Your task to perform on an android device: Do I have any events this weekend? Image 0: 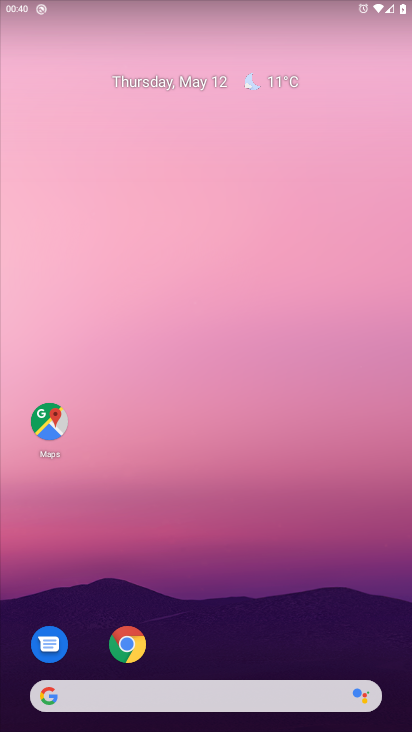
Step 0: drag from (208, 662) to (269, 198)
Your task to perform on an android device: Do I have any events this weekend? Image 1: 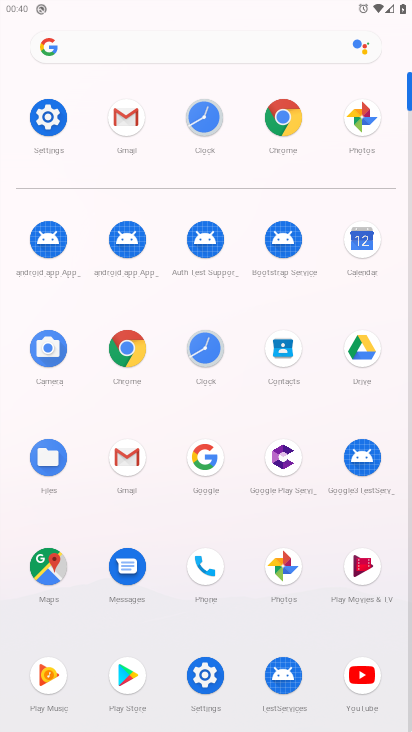
Step 1: click (365, 240)
Your task to perform on an android device: Do I have any events this weekend? Image 2: 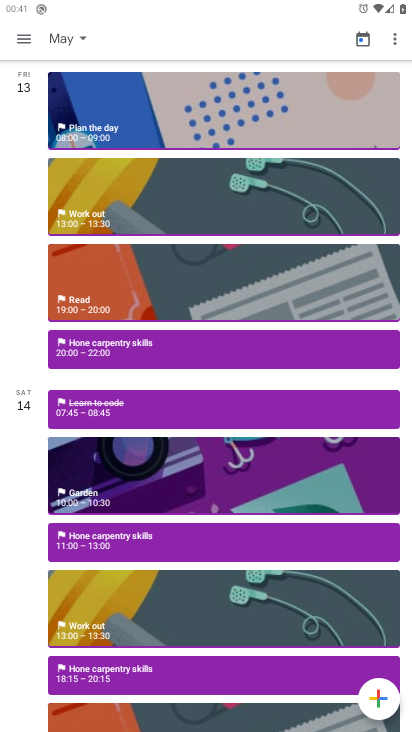
Step 2: task complete